Your task to perform on an android device: change the clock display to show seconds Image 0: 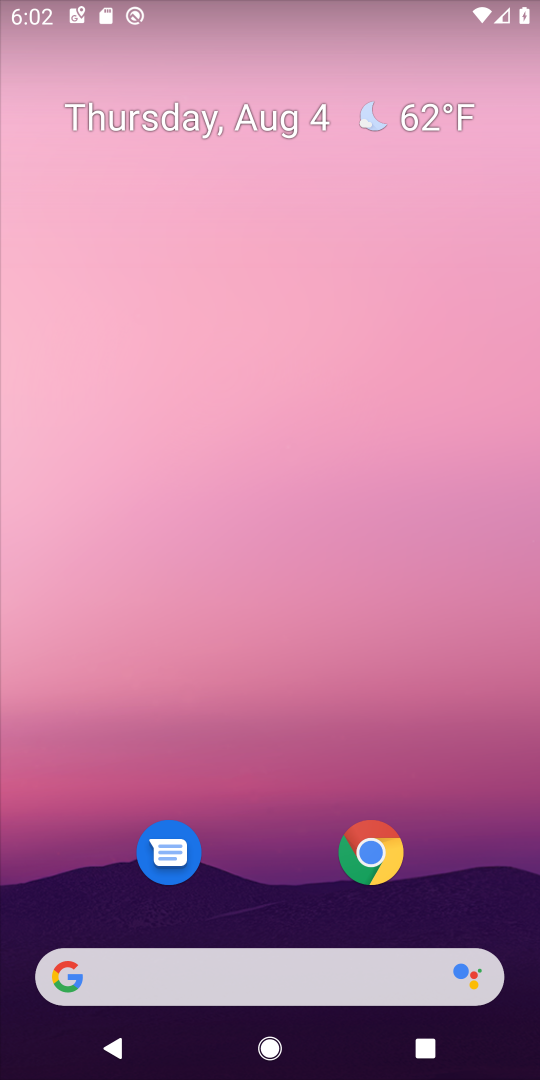
Step 0: drag from (267, 932) to (239, 288)
Your task to perform on an android device: change the clock display to show seconds Image 1: 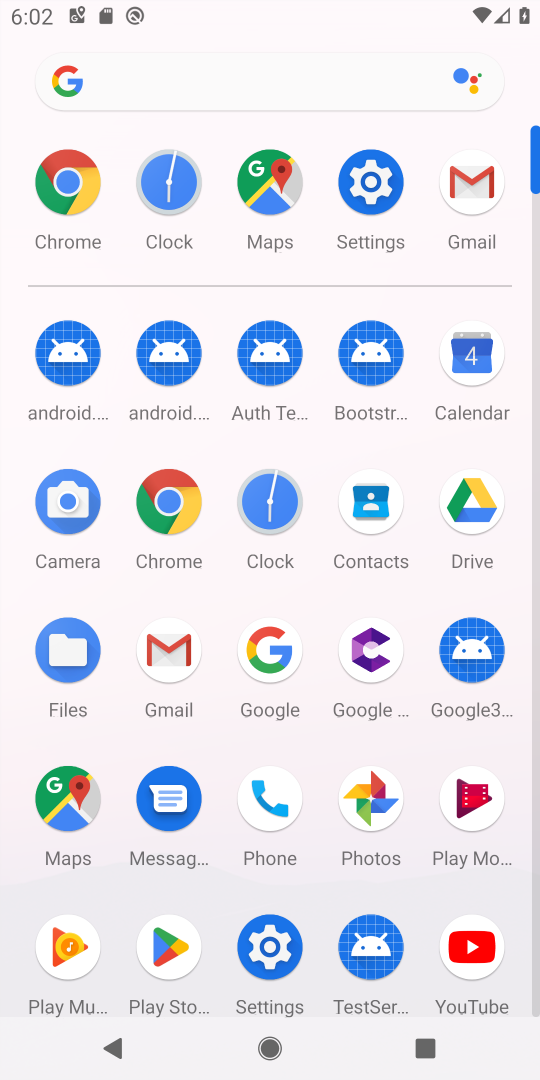
Step 1: click (264, 509)
Your task to perform on an android device: change the clock display to show seconds Image 2: 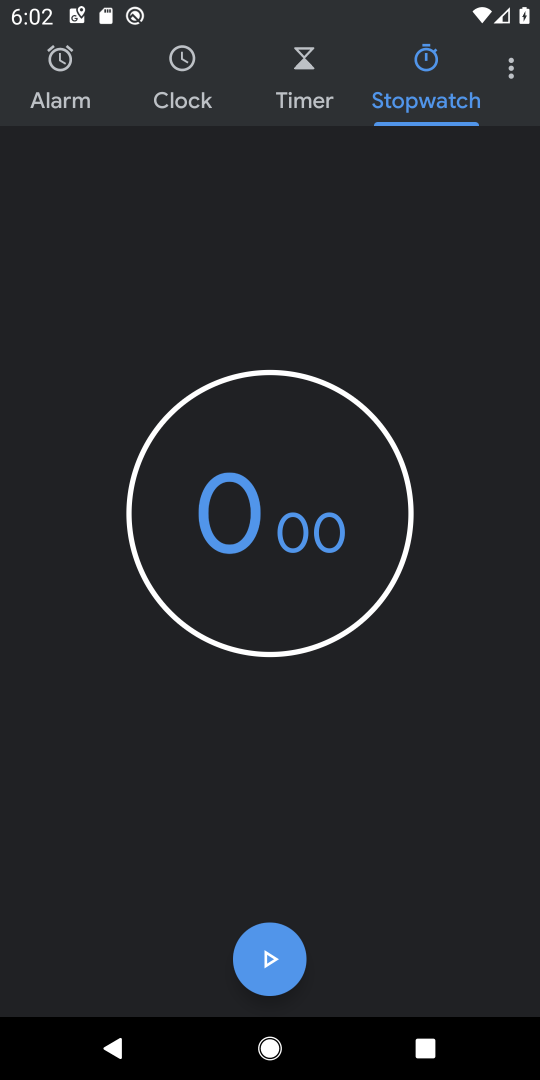
Step 2: click (513, 76)
Your task to perform on an android device: change the clock display to show seconds Image 3: 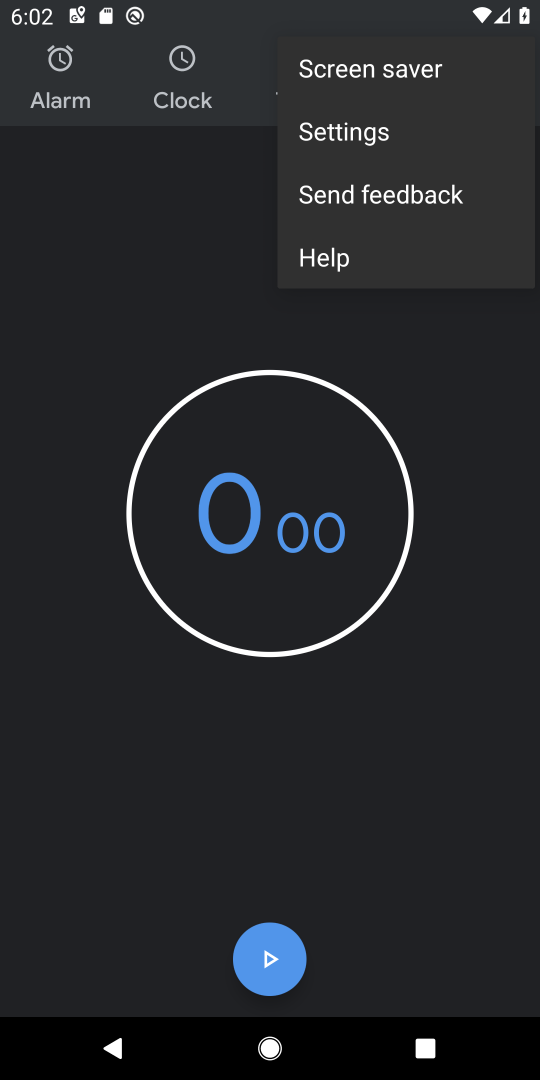
Step 3: click (373, 133)
Your task to perform on an android device: change the clock display to show seconds Image 4: 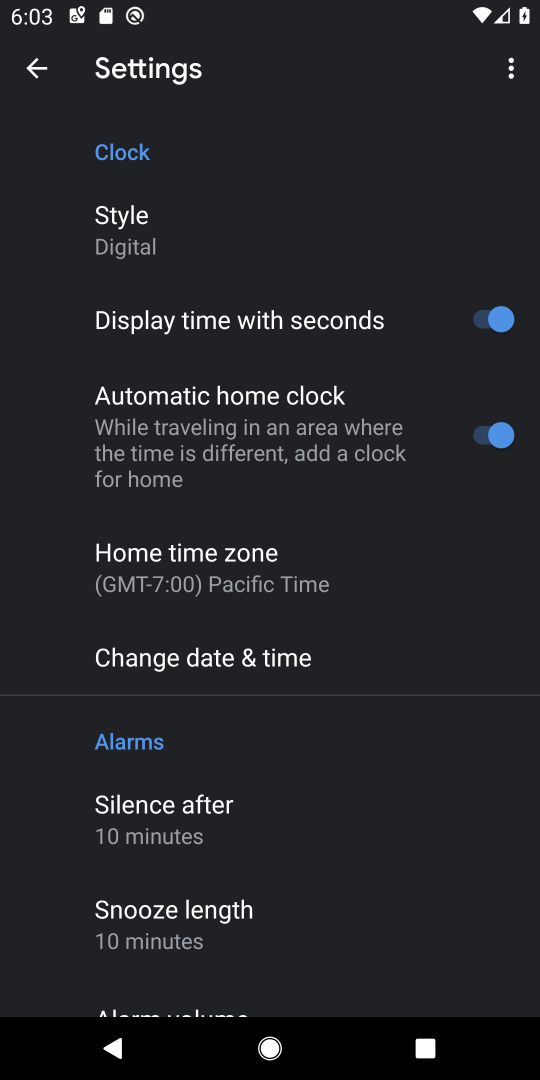
Step 4: task complete